Your task to perform on an android device: check battery use Image 0: 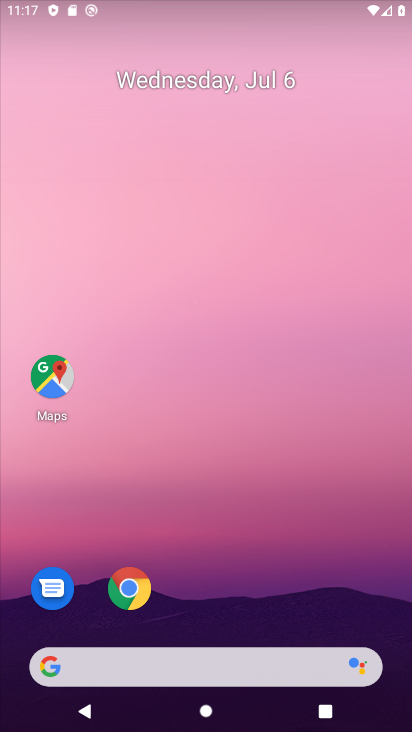
Step 0: drag from (231, 579) to (231, 132)
Your task to perform on an android device: check battery use Image 1: 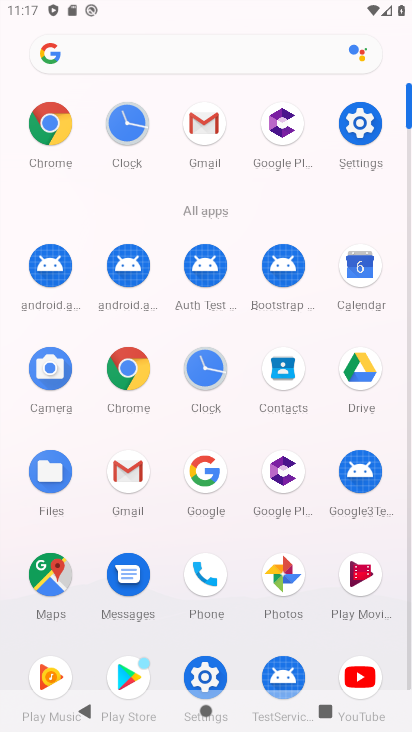
Step 1: click (356, 143)
Your task to perform on an android device: check battery use Image 2: 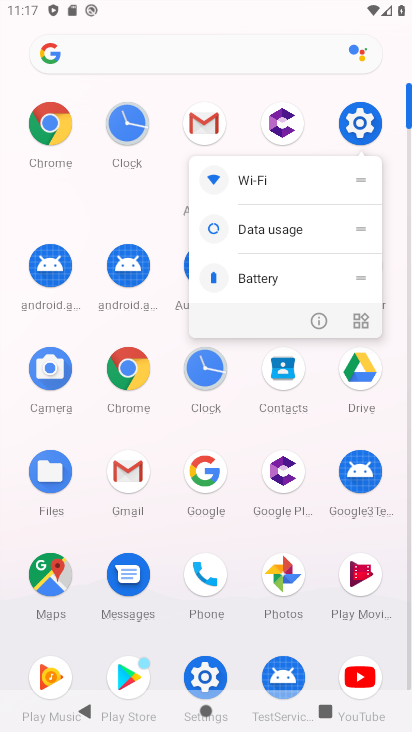
Step 2: click (318, 325)
Your task to perform on an android device: check battery use Image 3: 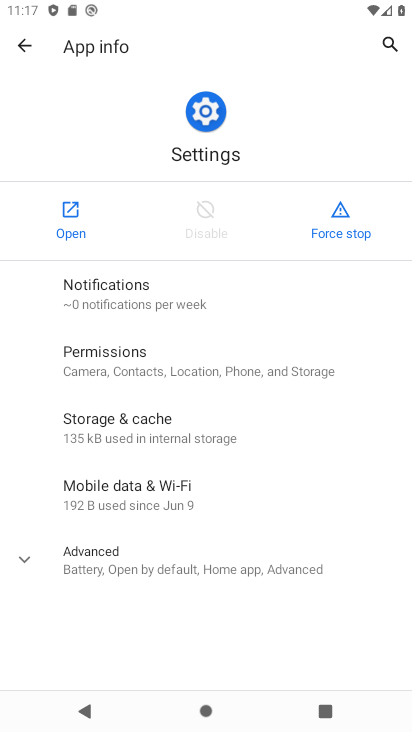
Step 3: click (62, 204)
Your task to perform on an android device: check battery use Image 4: 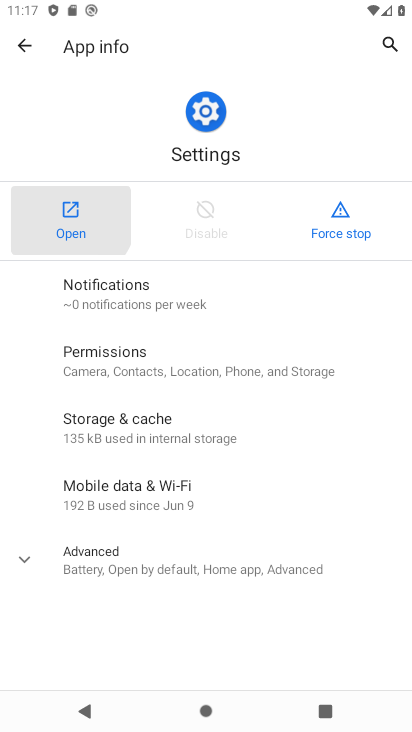
Step 4: click (62, 204)
Your task to perform on an android device: check battery use Image 5: 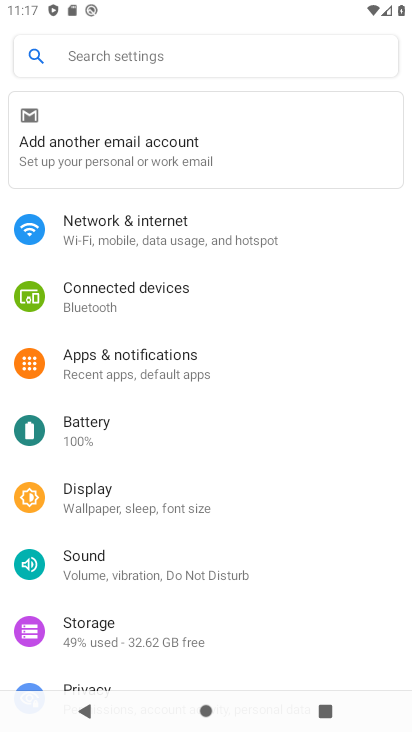
Step 5: click (131, 432)
Your task to perform on an android device: check battery use Image 6: 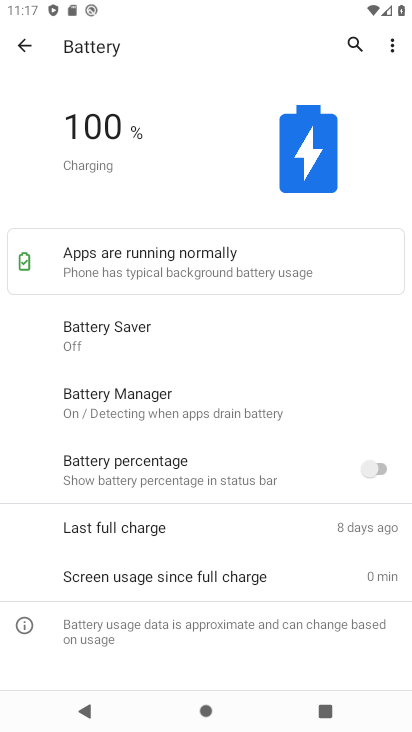
Step 6: drag from (169, 537) to (230, 254)
Your task to perform on an android device: check battery use Image 7: 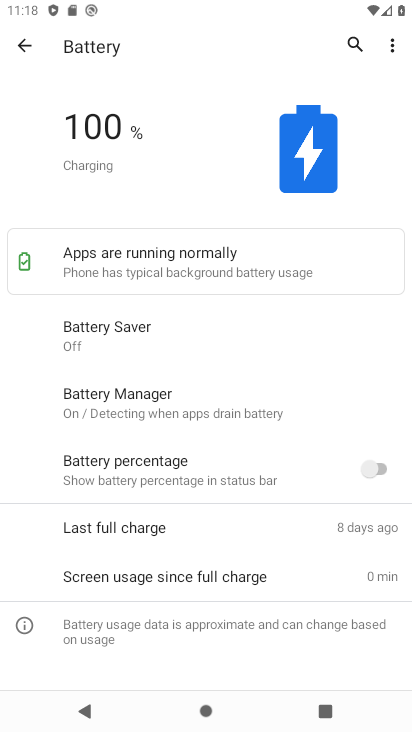
Step 7: drag from (175, 574) to (259, 253)
Your task to perform on an android device: check battery use Image 8: 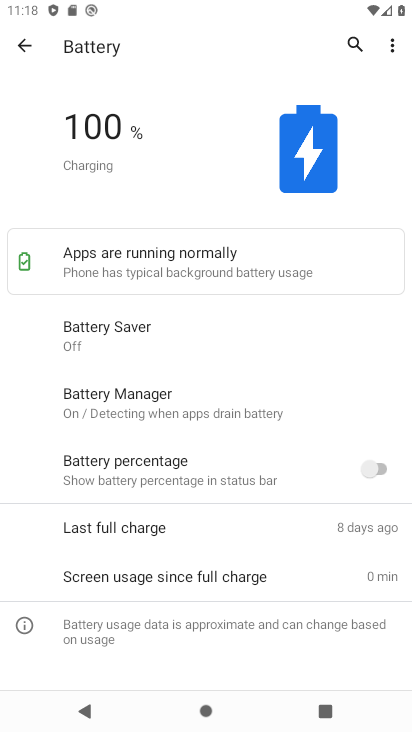
Step 8: click (397, 41)
Your task to perform on an android device: check battery use Image 9: 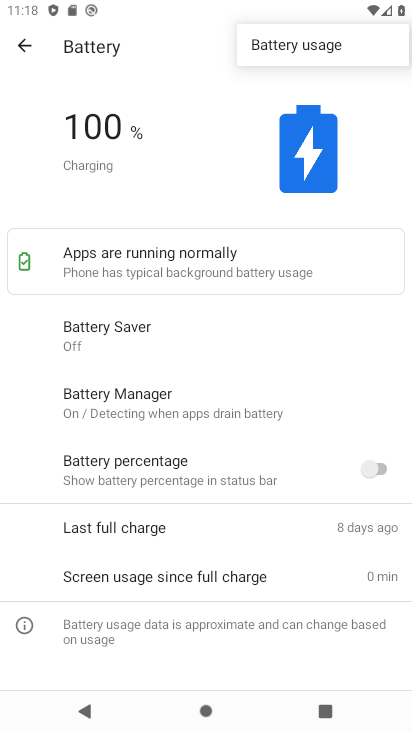
Step 9: click (338, 53)
Your task to perform on an android device: check battery use Image 10: 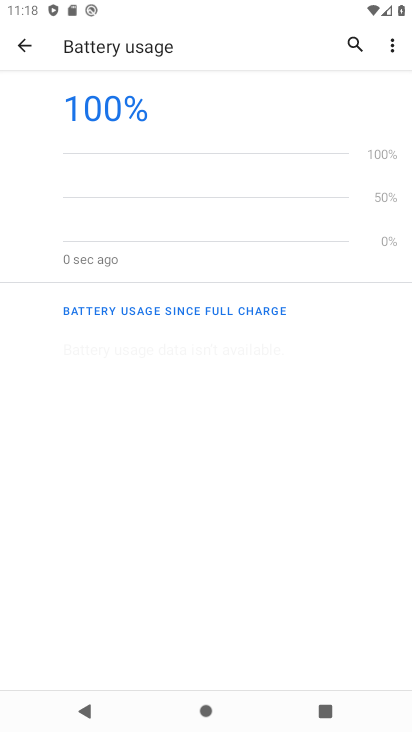
Step 10: task complete